Your task to perform on an android device: toggle priority inbox in the gmail app Image 0: 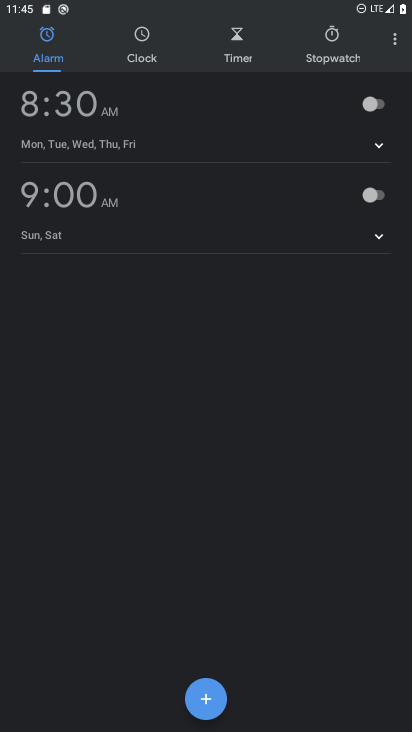
Step 0: press home button
Your task to perform on an android device: toggle priority inbox in the gmail app Image 1: 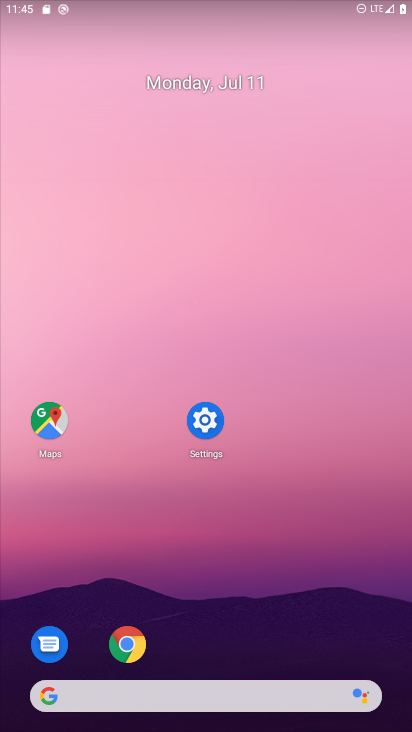
Step 1: drag from (392, 680) to (329, 141)
Your task to perform on an android device: toggle priority inbox in the gmail app Image 2: 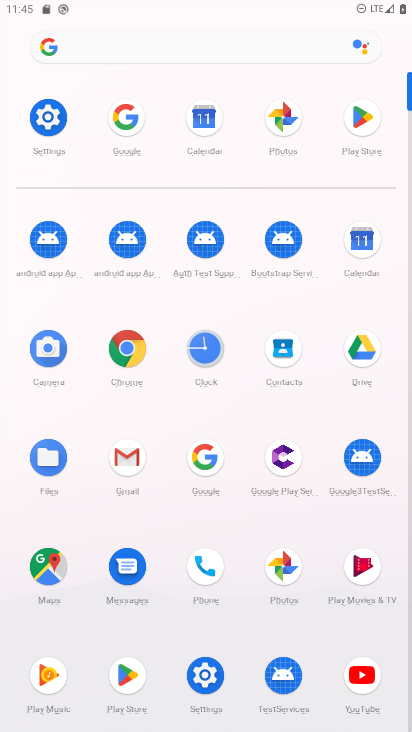
Step 2: click (132, 459)
Your task to perform on an android device: toggle priority inbox in the gmail app Image 3: 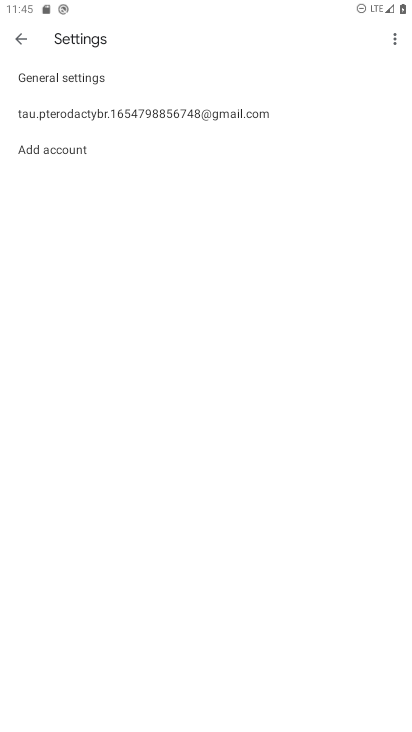
Step 3: click (52, 115)
Your task to perform on an android device: toggle priority inbox in the gmail app Image 4: 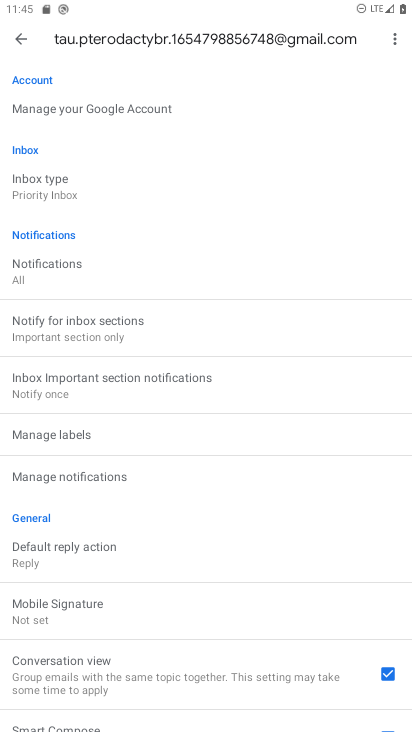
Step 4: click (52, 173)
Your task to perform on an android device: toggle priority inbox in the gmail app Image 5: 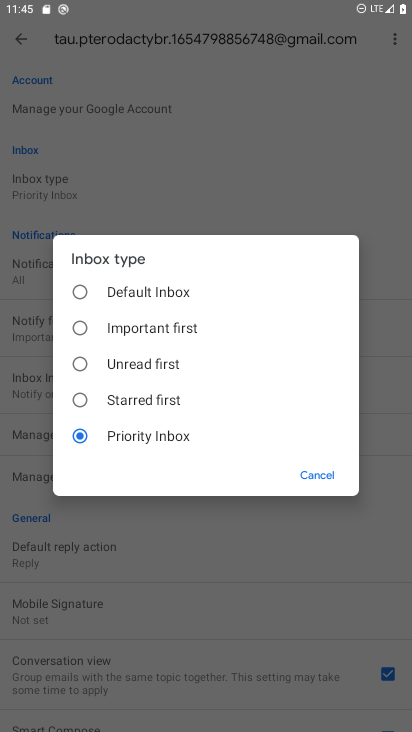
Step 5: click (78, 326)
Your task to perform on an android device: toggle priority inbox in the gmail app Image 6: 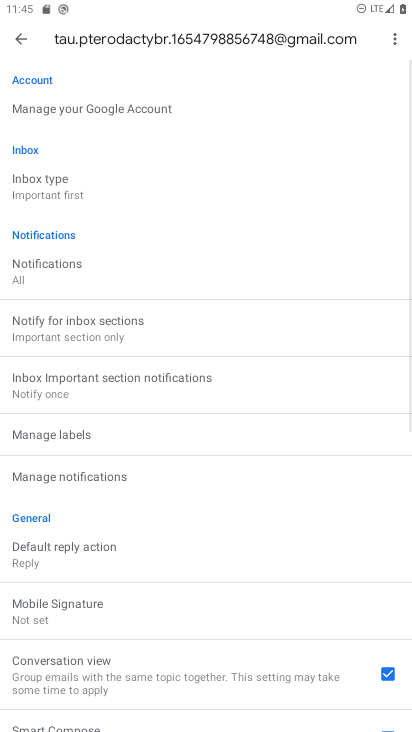
Step 6: task complete